Your task to perform on an android device: read, delete, or share a saved page in the chrome app Image 0: 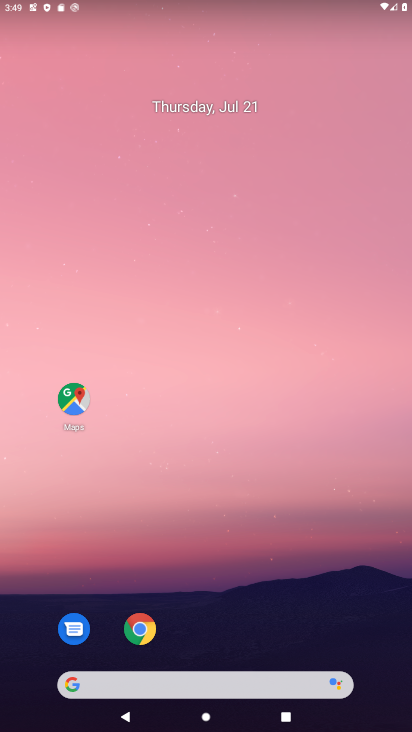
Step 0: drag from (286, 607) to (337, 31)
Your task to perform on an android device: read, delete, or share a saved page in the chrome app Image 1: 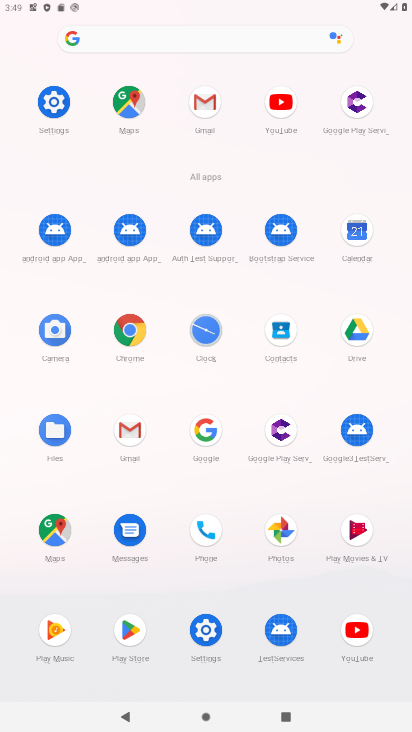
Step 1: click (101, 315)
Your task to perform on an android device: read, delete, or share a saved page in the chrome app Image 2: 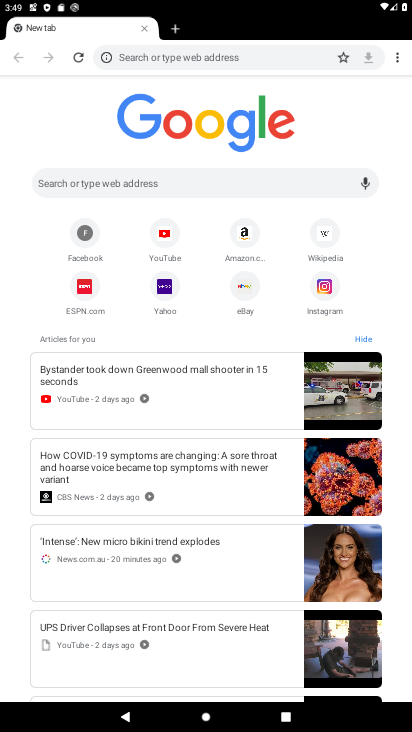
Step 2: task complete